Your task to perform on an android device: turn on airplane mode Image 0: 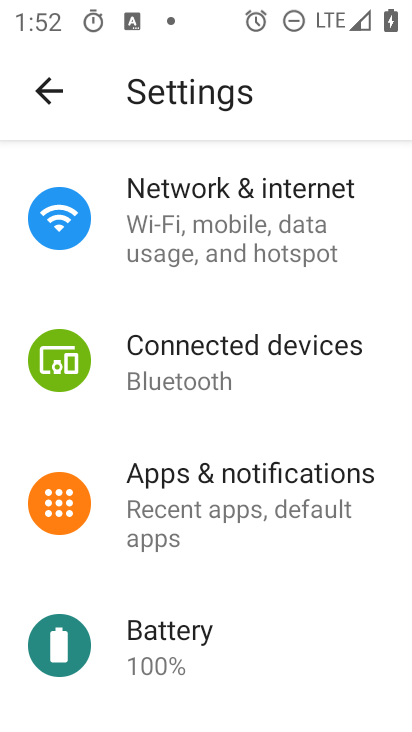
Step 0: drag from (294, 238) to (251, 594)
Your task to perform on an android device: turn on airplane mode Image 1: 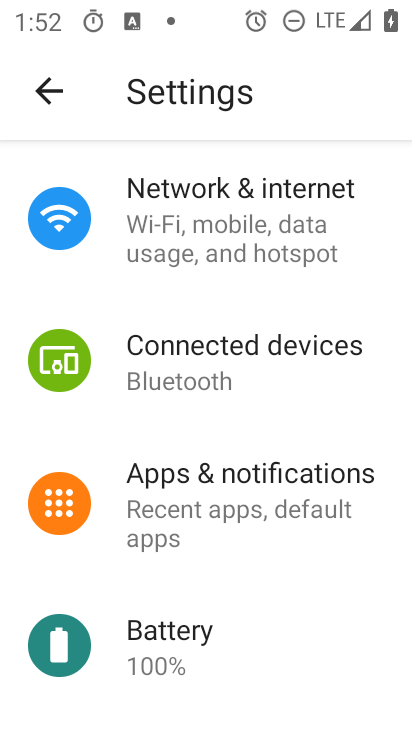
Step 1: click (250, 239)
Your task to perform on an android device: turn on airplane mode Image 2: 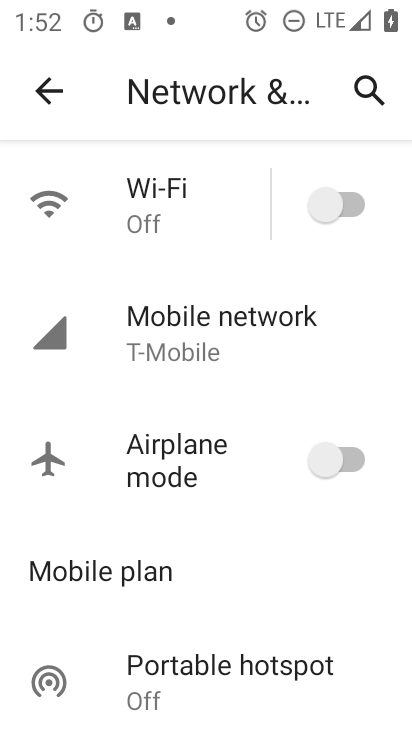
Step 2: click (255, 459)
Your task to perform on an android device: turn on airplane mode Image 3: 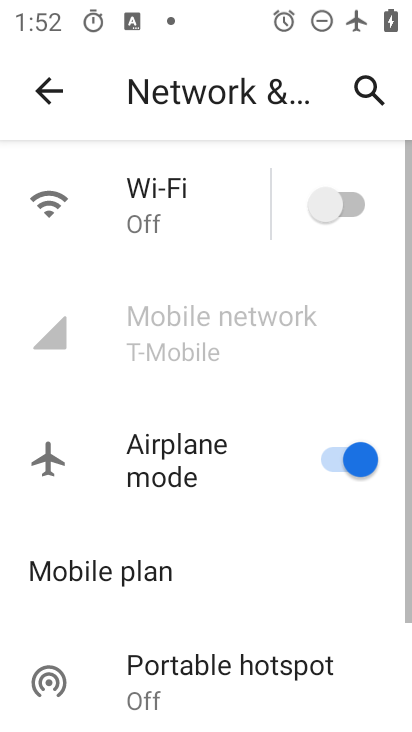
Step 3: task complete